Your task to perform on an android device: Open Yahoo.com Image 0: 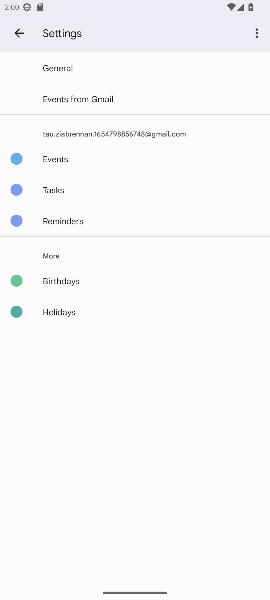
Step 0: press home button
Your task to perform on an android device: Open Yahoo.com Image 1: 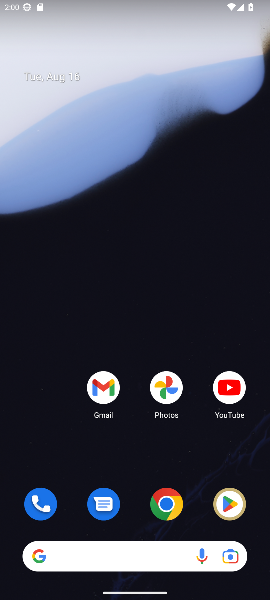
Step 1: click (166, 506)
Your task to perform on an android device: Open Yahoo.com Image 2: 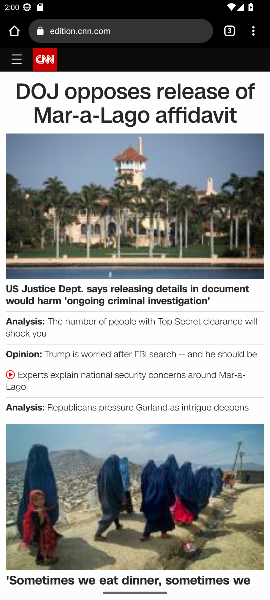
Step 2: click (254, 26)
Your task to perform on an android device: Open Yahoo.com Image 3: 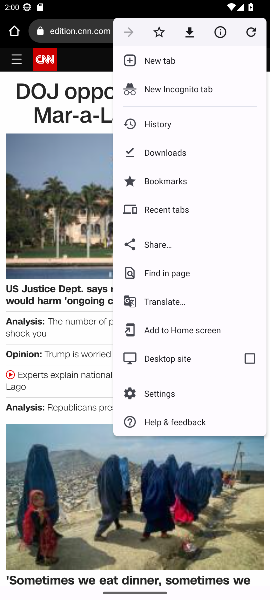
Step 3: click (161, 53)
Your task to perform on an android device: Open Yahoo.com Image 4: 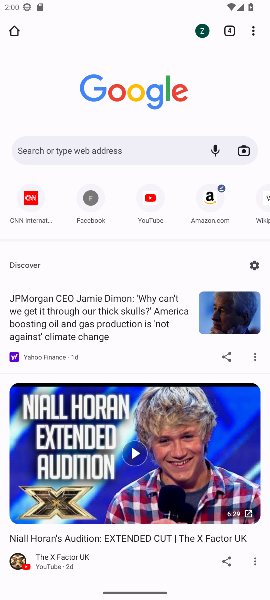
Step 4: click (103, 146)
Your task to perform on an android device: Open Yahoo.com Image 5: 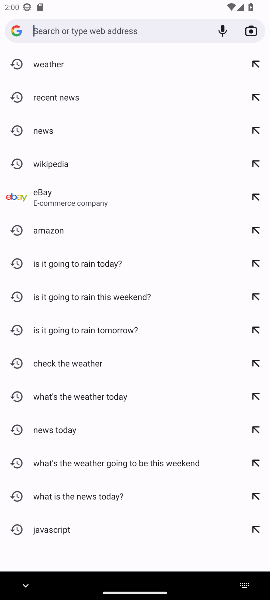
Step 5: type "yahoo.com"
Your task to perform on an android device: Open Yahoo.com Image 6: 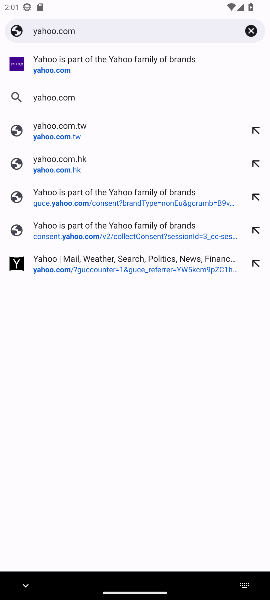
Step 6: click (46, 58)
Your task to perform on an android device: Open Yahoo.com Image 7: 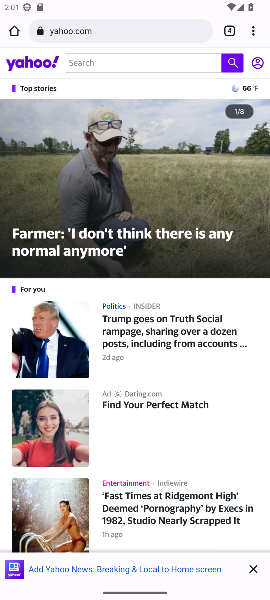
Step 7: task complete